Your task to perform on an android device: empty trash in the gmail app Image 0: 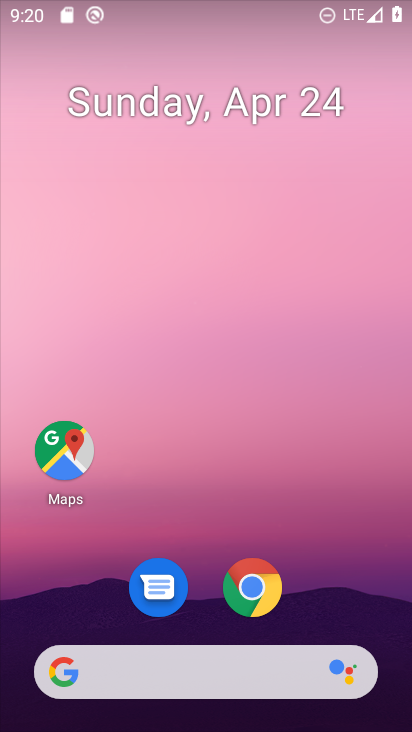
Step 0: drag from (364, 559) to (373, 98)
Your task to perform on an android device: empty trash in the gmail app Image 1: 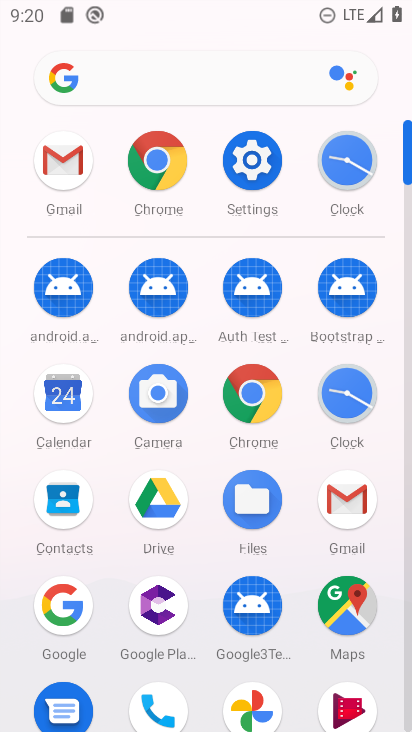
Step 1: click (331, 514)
Your task to perform on an android device: empty trash in the gmail app Image 2: 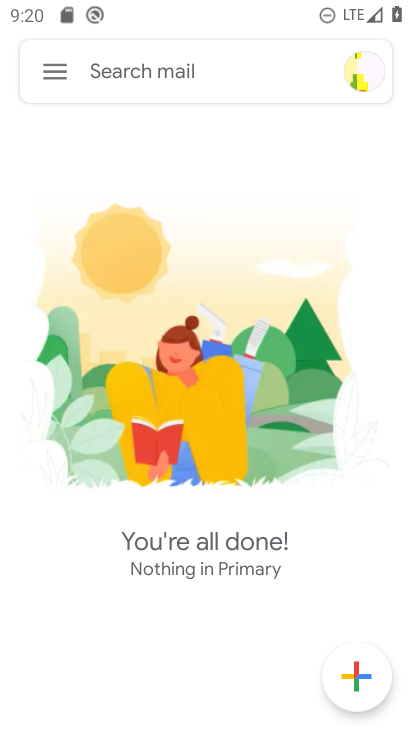
Step 2: click (45, 71)
Your task to perform on an android device: empty trash in the gmail app Image 3: 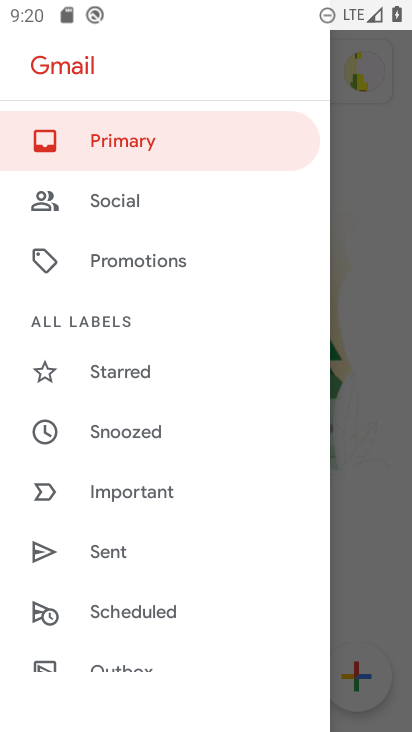
Step 3: drag from (226, 548) to (208, 184)
Your task to perform on an android device: empty trash in the gmail app Image 4: 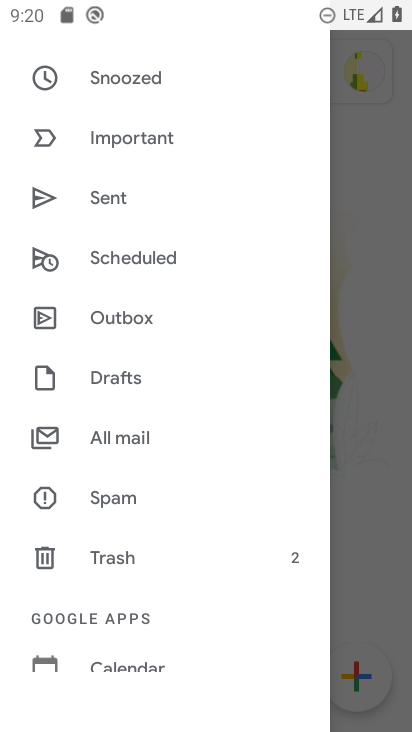
Step 4: drag from (179, 564) to (184, 276)
Your task to perform on an android device: empty trash in the gmail app Image 5: 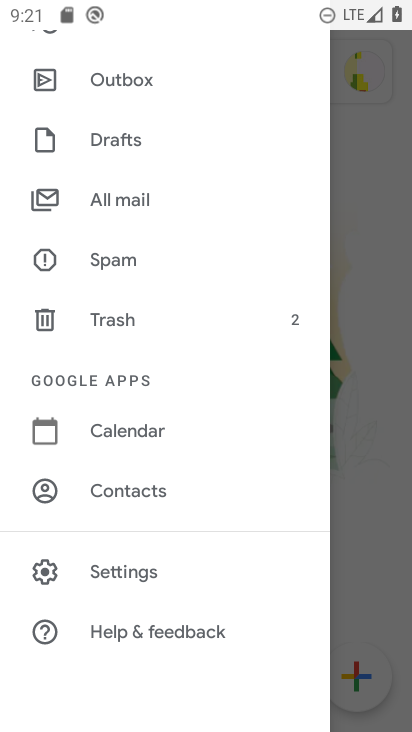
Step 5: click (143, 570)
Your task to perform on an android device: empty trash in the gmail app Image 6: 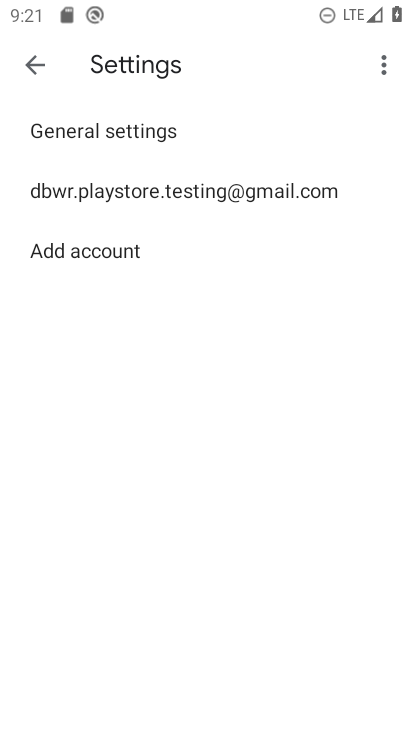
Step 6: click (191, 195)
Your task to perform on an android device: empty trash in the gmail app Image 7: 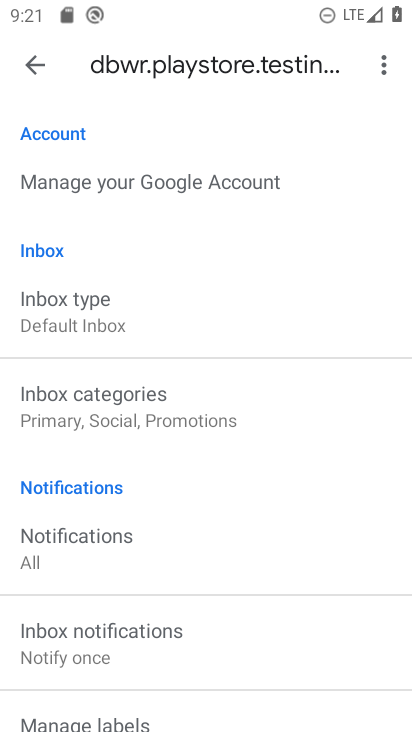
Step 7: drag from (174, 537) to (225, 262)
Your task to perform on an android device: empty trash in the gmail app Image 8: 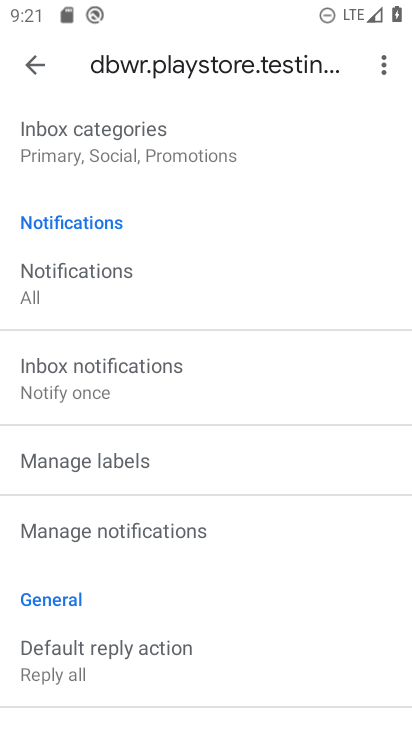
Step 8: click (31, 80)
Your task to perform on an android device: empty trash in the gmail app Image 9: 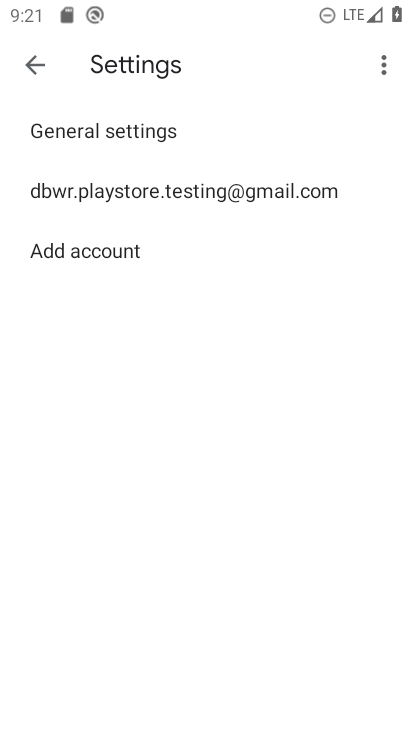
Step 9: click (31, 80)
Your task to perform on an android device: empty trash in the gmail app Image 10: 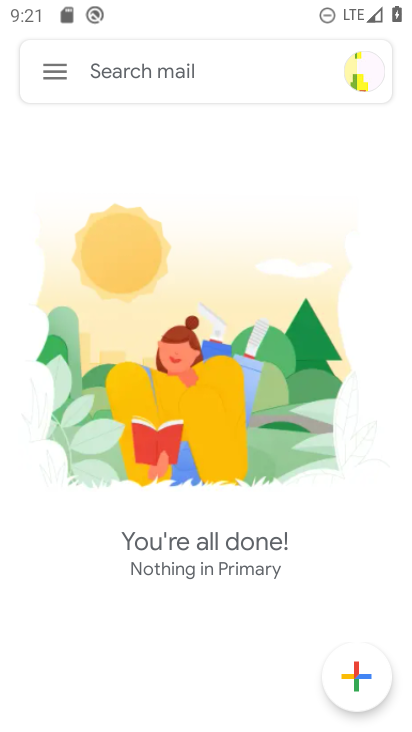
Step 10: click (67, 70)
Your task to perform on an android device: empty trash in the gmail app Image 11: 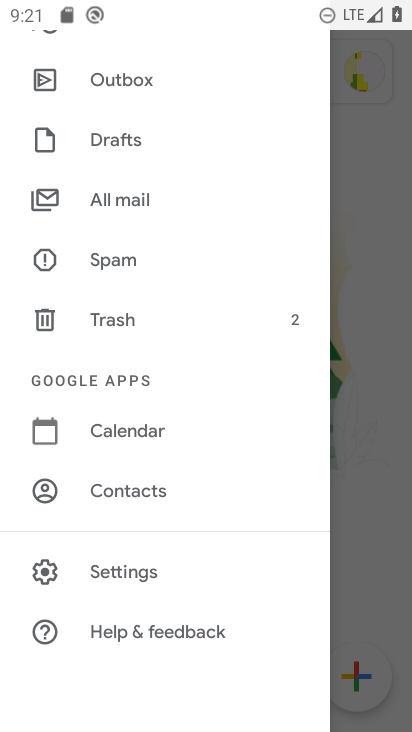
Step 11: click (140, 320)
Your task to perform on an android device: empty trash in the gmail app Image 12: 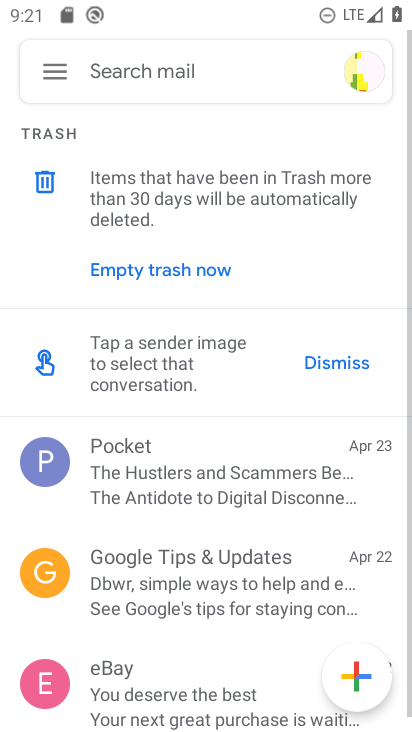
Step 12: click (143, 268)
Your task to perform on an android device: empty trash in the gmail app Image 13: 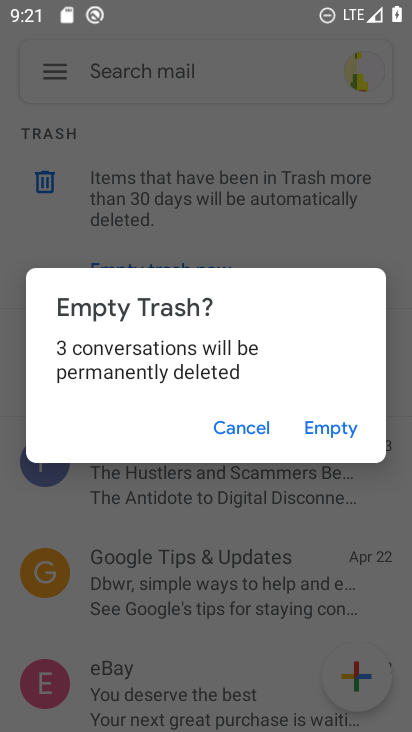
Step 13: click (314, 428)
Your task to perform on an android device: empty trash in the gmail app Image 14: 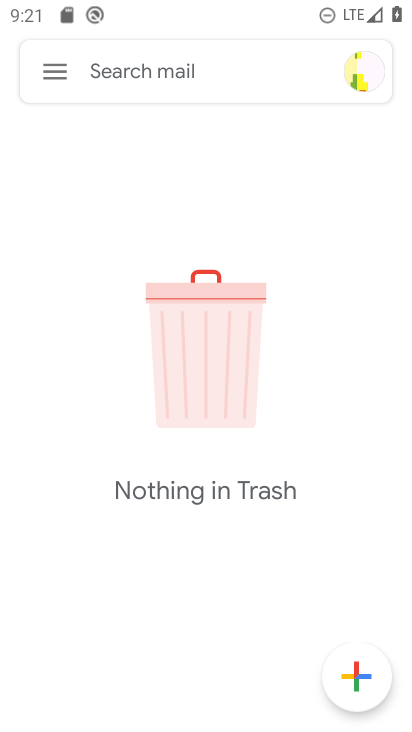
Step 14: task complete